Your task to perform on an android device: toggle wifi Image 0: 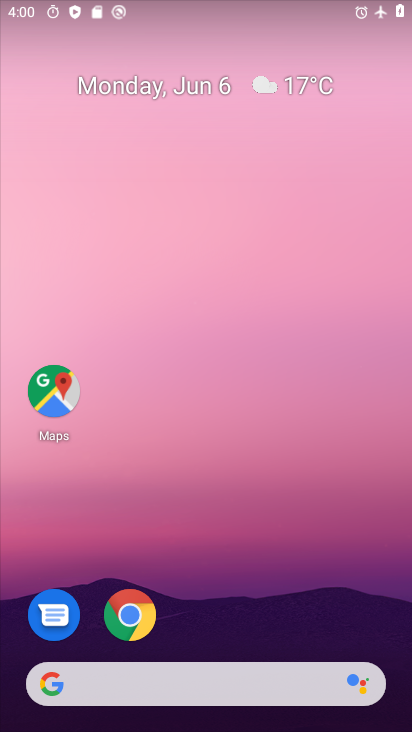
Step 0: drag from (212, 585) to (220, 8)
Your task to perform on an android device: toggle wifi Image 1: 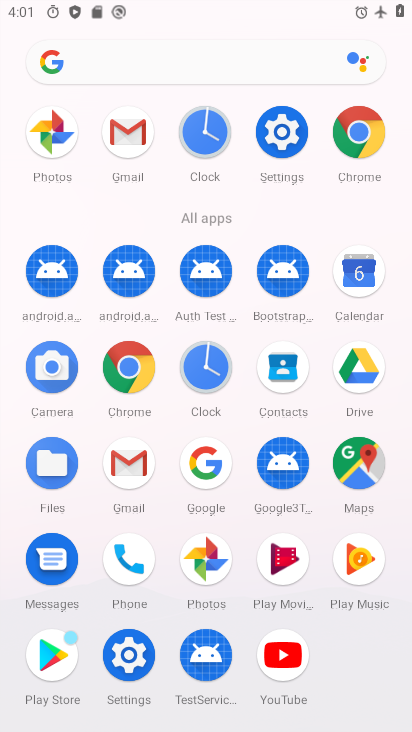
Step 1: click (128, 652)
Your task to perform on an android device: toggle wifi Image 2: 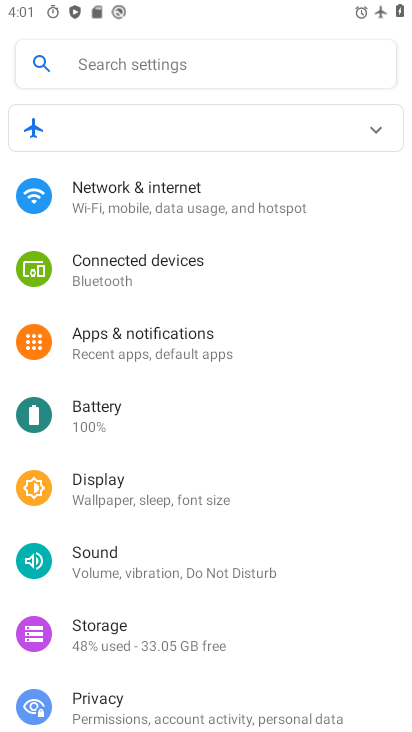
Step 2: click (193, 209)
Your task to perform on an android device: toggle wifi Image 3: 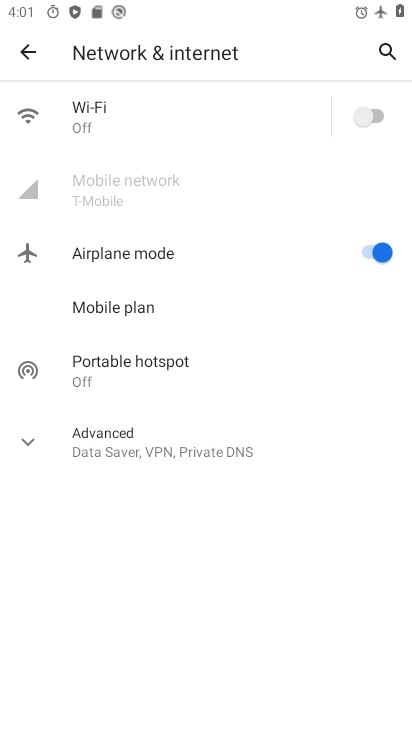
Step 3: click (362, 111)
Your task to perform on an android device: toggle wifi Image 4: 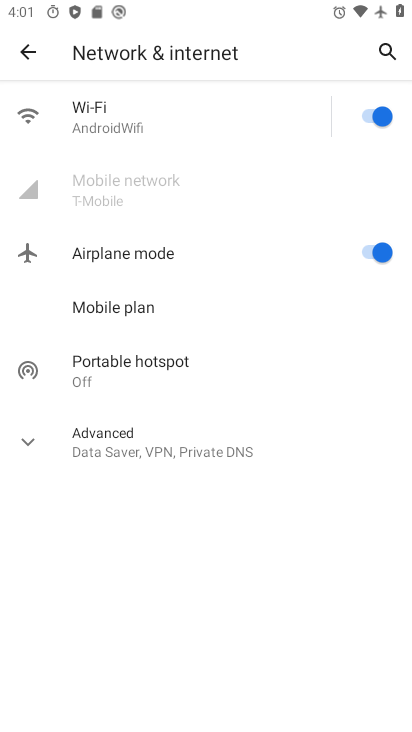
Step 4: click (41, 444)
Your task to perform on an android device: toggle wifi Image 5: 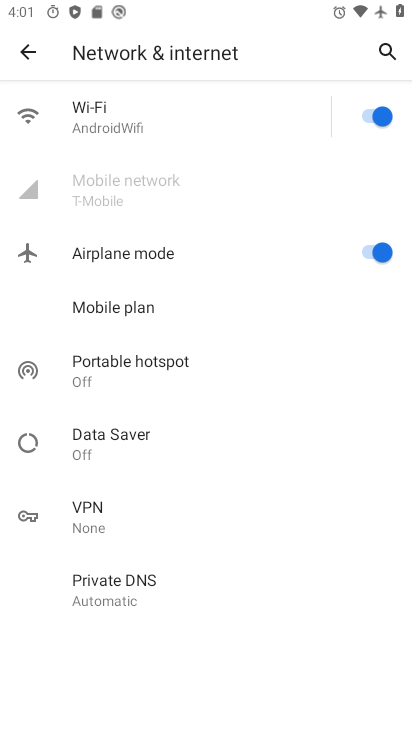
Step 5: task complete